Your task to perform on an android device: open wifi settings Image 0: 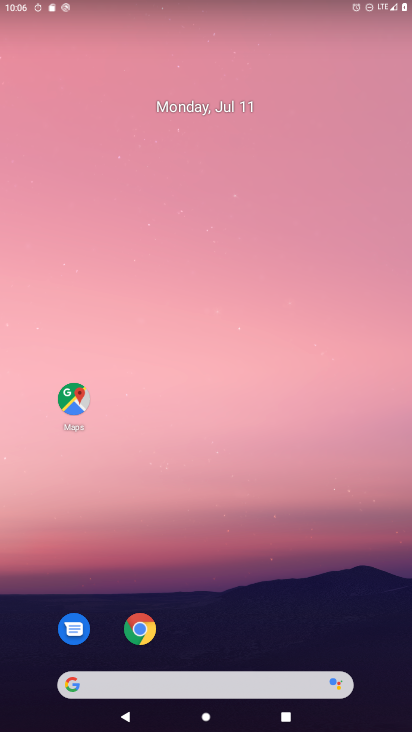
Step 0: drag from (227, 10) to (188, 577)
Your task to perform on an android device: open wifi settings Image 1: 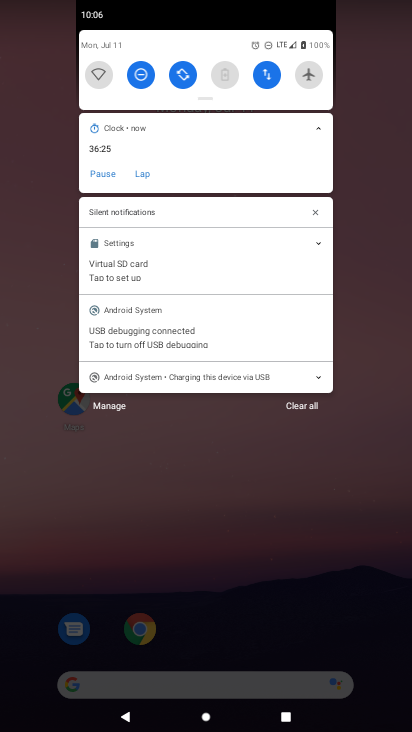
Step 1: click (95, 83)
Your task to perform on an android device: open wifi settings Image 2: 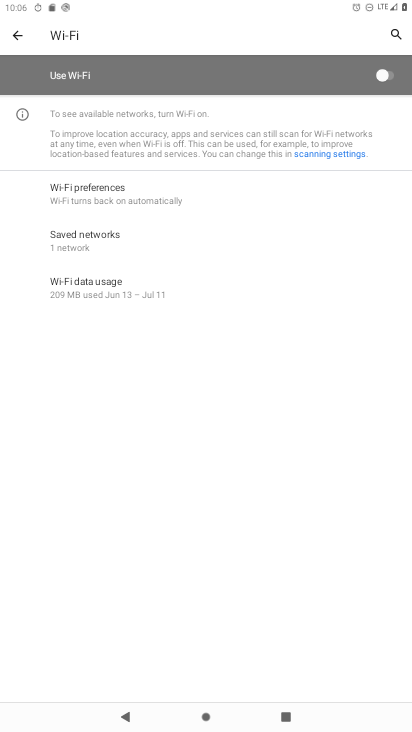
Step 2: task complete